Your task to perform on an android device: Check the weather Image 0: 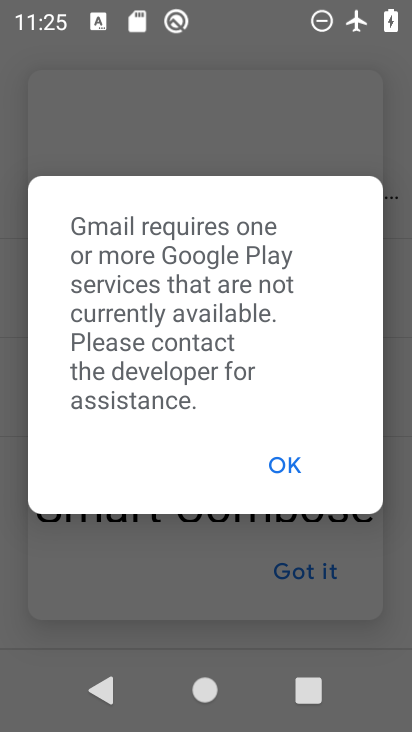
Step 0: press home button
Your task to perform on an android device: Check the weather Image 1: 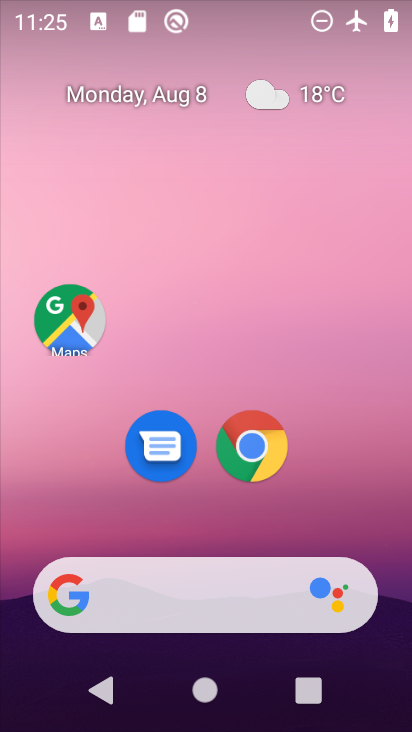
Step 1: click (319, 92)
Your task to perform on an android device: Check the weather Image 2: 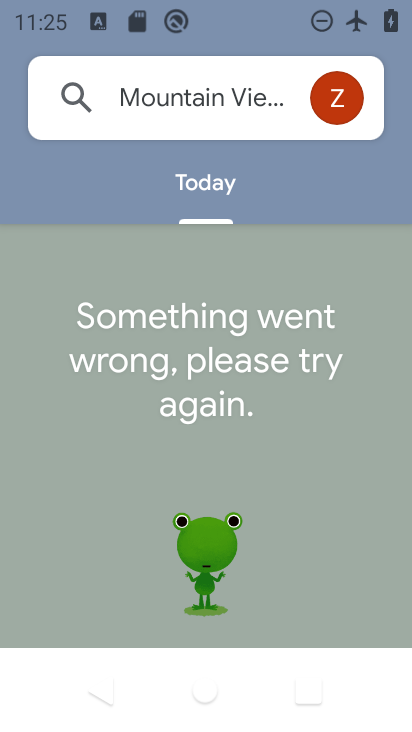
Step 2: task complete